Your task to perform on an android device: Go to Wikipedia Image 0: 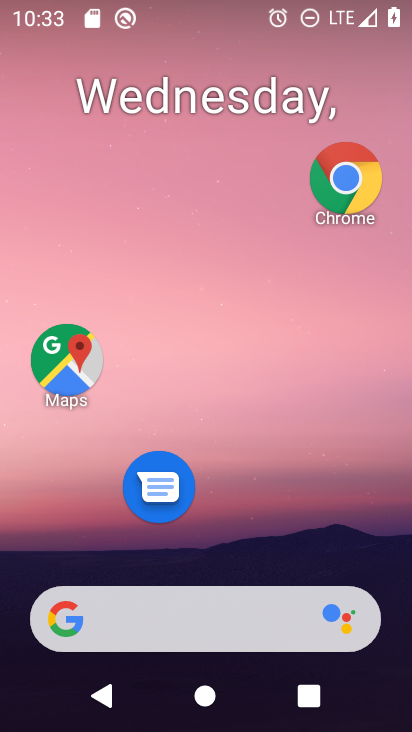
Step 0: drag from (199, 670) to (223, 173)
Your task to perform on an android device: Go to Wikipedia Image 1: 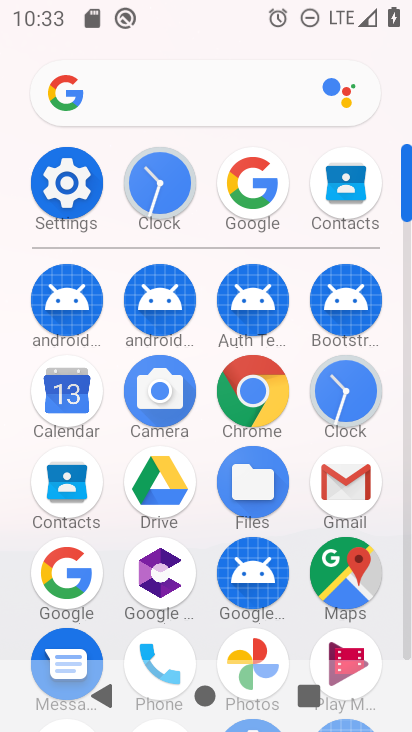
Step 1: click (273, 414)
Your task to perform on an android device: Go to Wikipedia Image 2: 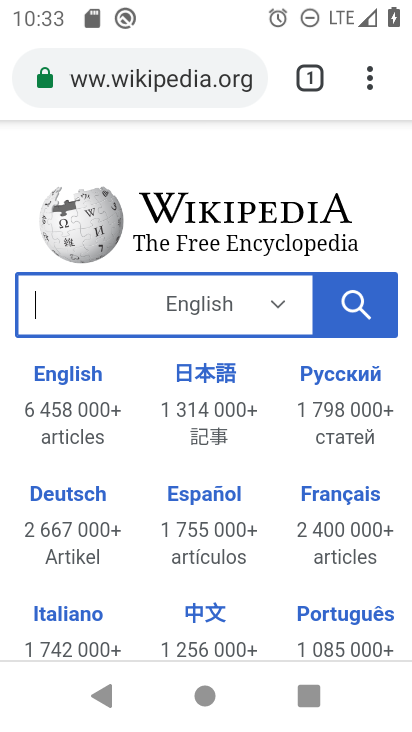
Step 2: click (391, 75)
Your task to perform on an android device: Go to Wikipedia Image 3: 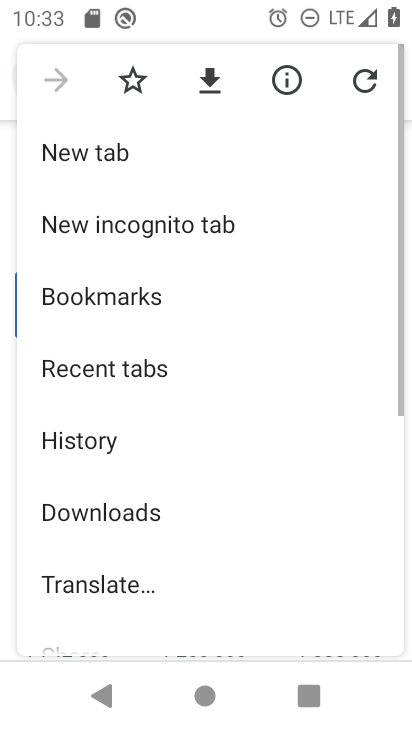
Step 3: click (360, 85)
Your task to perform on an android device: Go to Wikipedia Image 4: 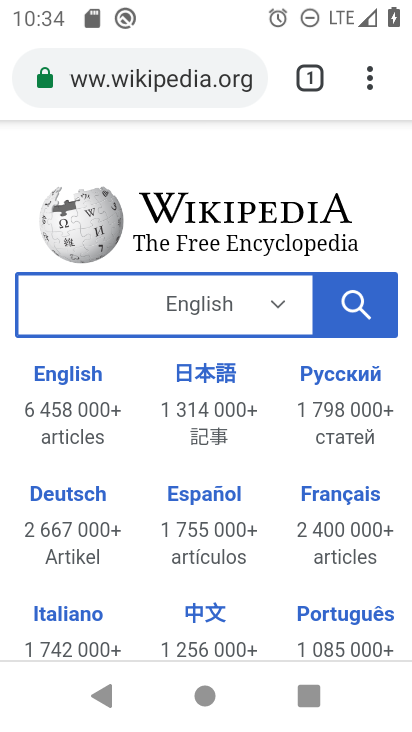
Step 4: task complete